Your task to perform on an android device: turn off notifications settings in the gmail app Image 0: 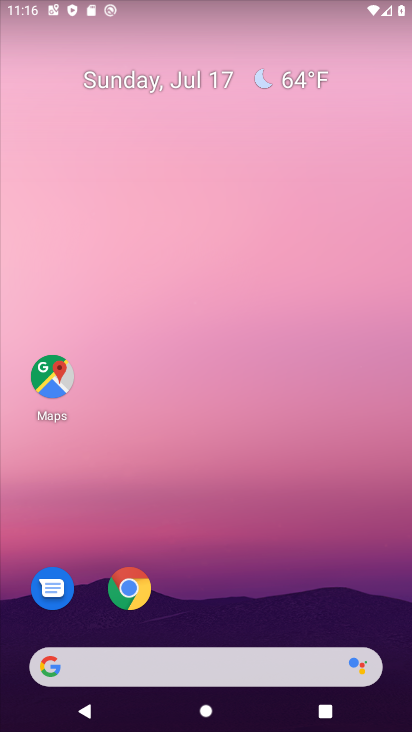
Step 0: drag from (192, 657) to (234, 97)
Your task to perform on an android device: turn off notifications settings in the gmail app Image 1: 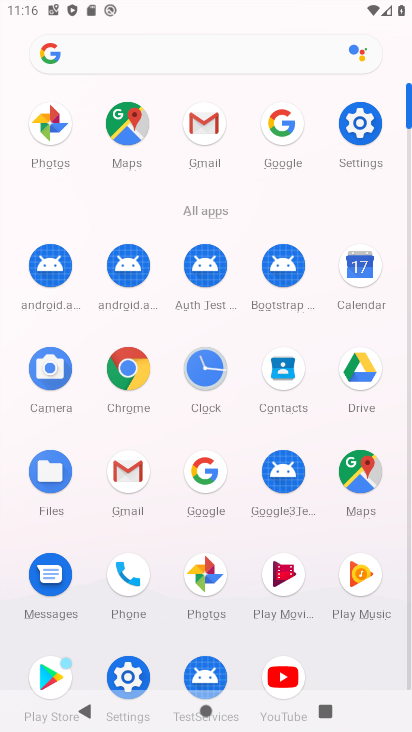
Step 1: click (123, 482)
Your task to perform on an android device: turn off notifications settings in the gmail app Image 2: 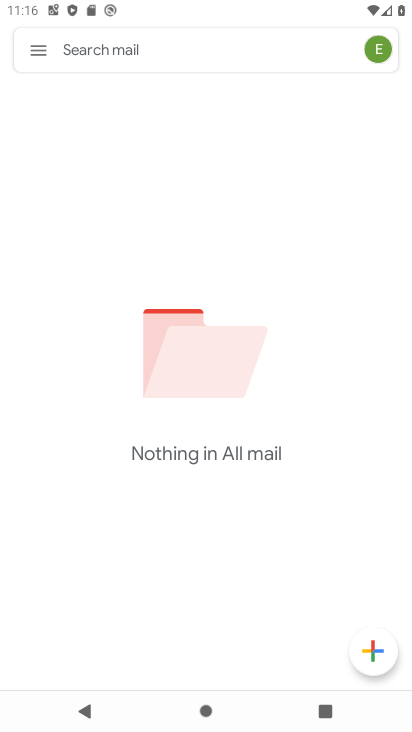
Step 2: click (29, 48)
Your task to perform on an android device: turn off notifications settings in the gmail app Image 3: 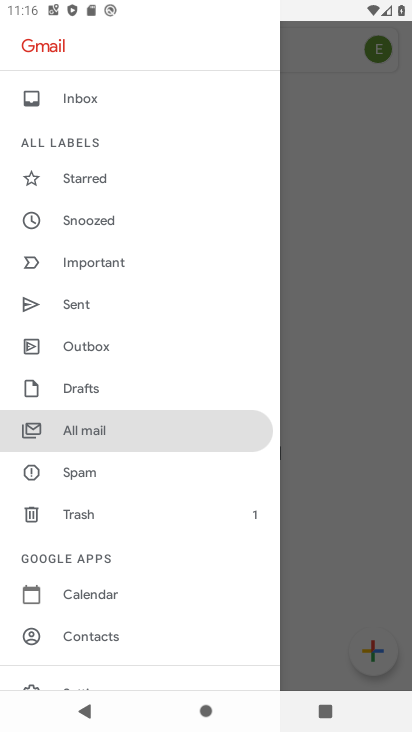
Step 3: drag from (152, 634) to (111, 81)
Your task to perform on an android device: turn off notifications settings in the gmail app Image 4: 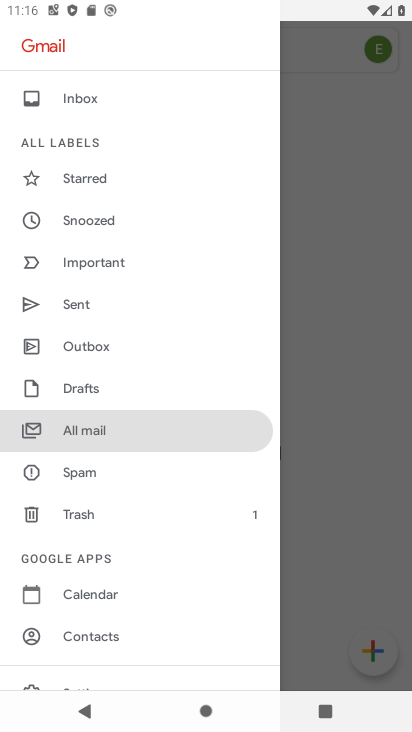
Step 4: drag from (169, 658) to (19, 33)
Your task to perform on an android device: turn off notifications settings in the gmail app Image 5: 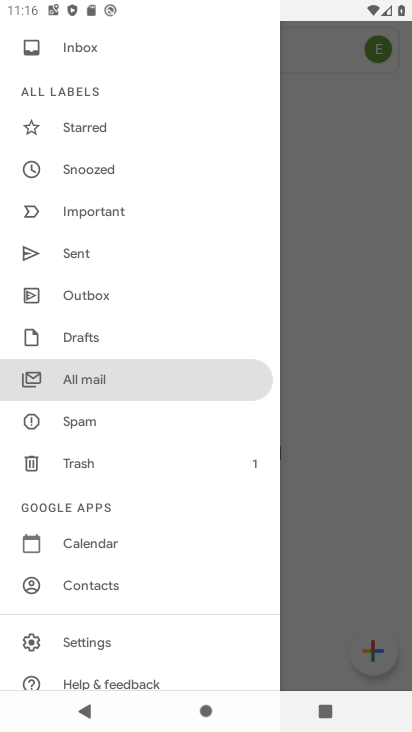
Step 5: click (88, 645)
Your task to perform on an android device: turn off notifications settings in the gmail app Image 6: 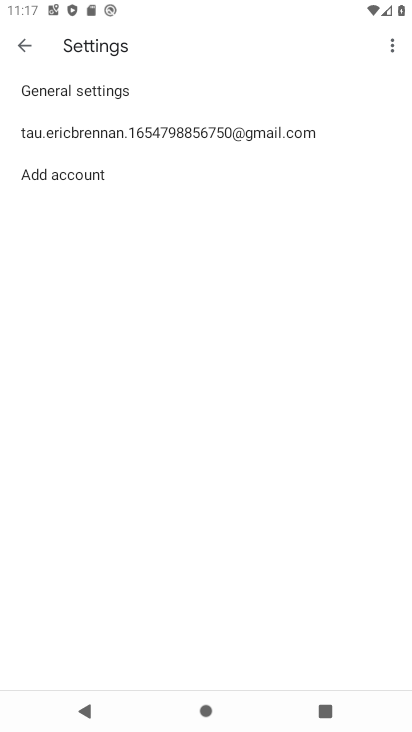
Step 6: click (102, 139)
Your task to perform on an android device: turn off notifications settings in the gmail app Image 7: 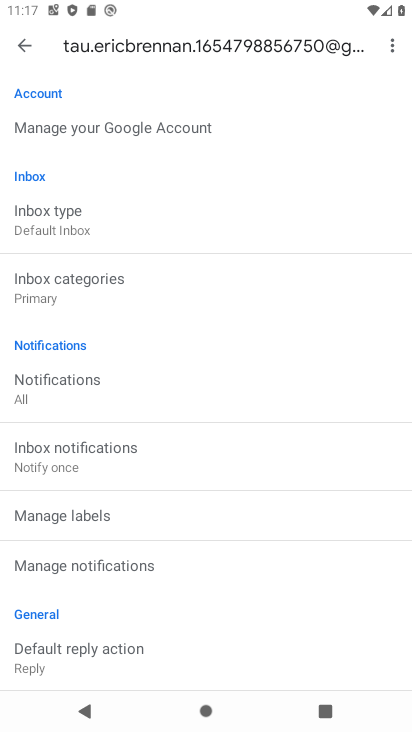
Step 7: click (111, 561)
Your task to perform on an android device: turn off notifications settings in the gmail app Image 8: 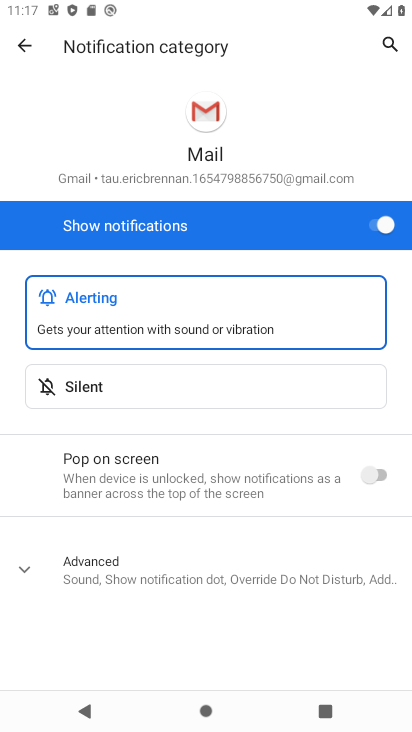
Step 8: click (367, 228)
Your task to perform on an android device: turn off notifications settings in the gmail app Image 9: 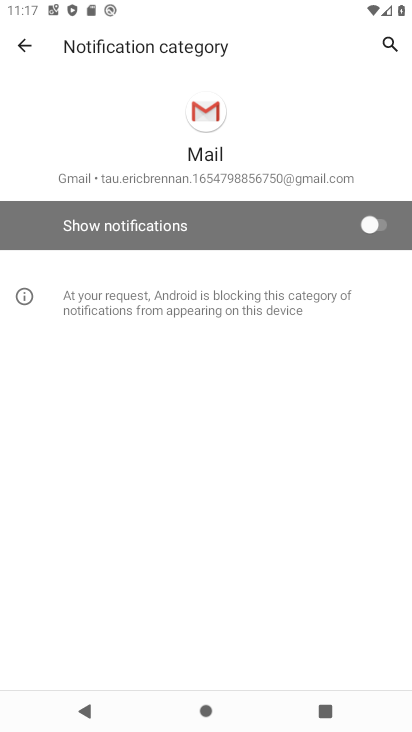
Step 9: task complete